Your task to perform on an android device: Do I have any events today? Image 0: 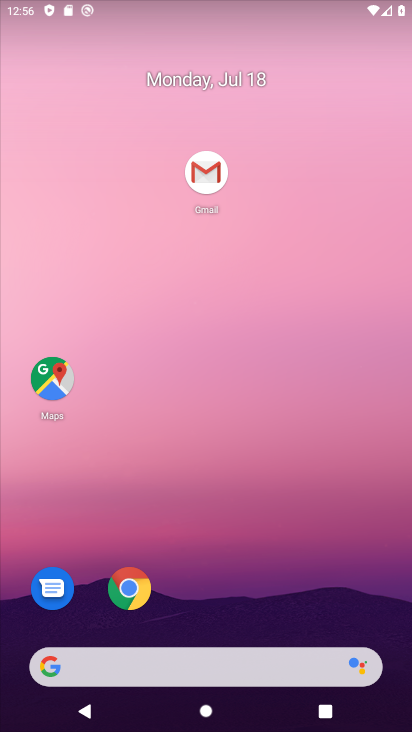
Step 0: drag from (261, 580) to (271, 205)
Your task to perform on an android device: Do I have any events today? Image 1: 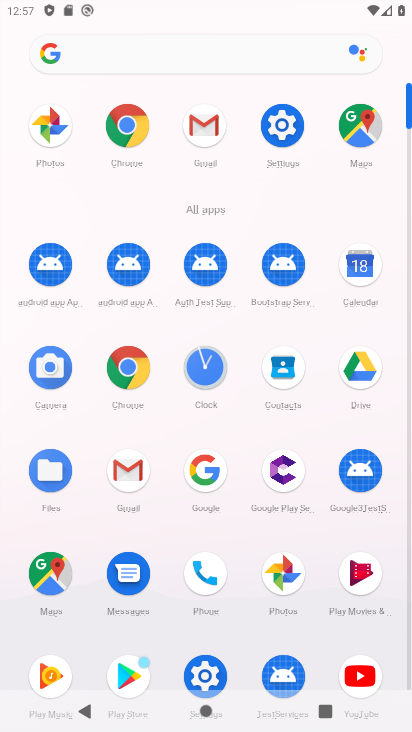
Step 1: press home button
Your task to perform on an android device: Do I have any events today? Image 2: 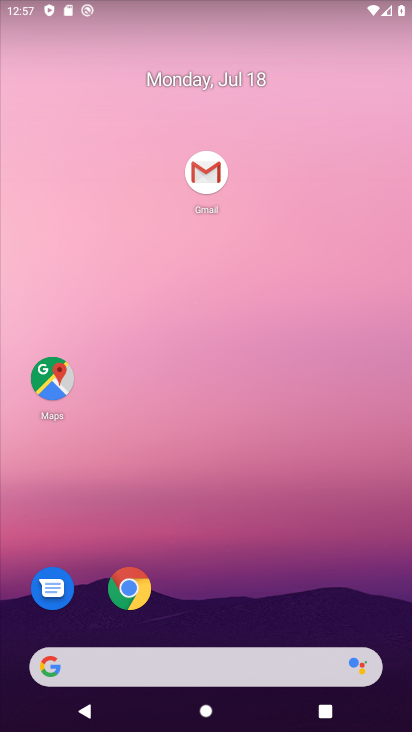
Step 2: drag from (346, 22) to (281, 10)
Your task to perform on an android device: Do I have any events today? Image 3: 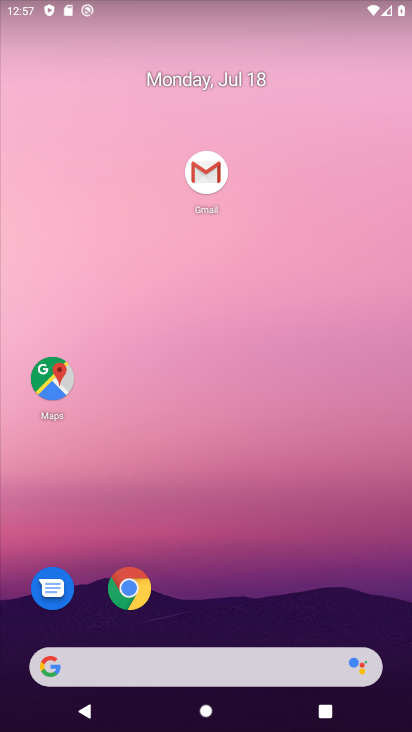
Step 3: drag from (252, 459) to (265, 122)
Your task to perform on an android device: Do I have any events today? Image 4: 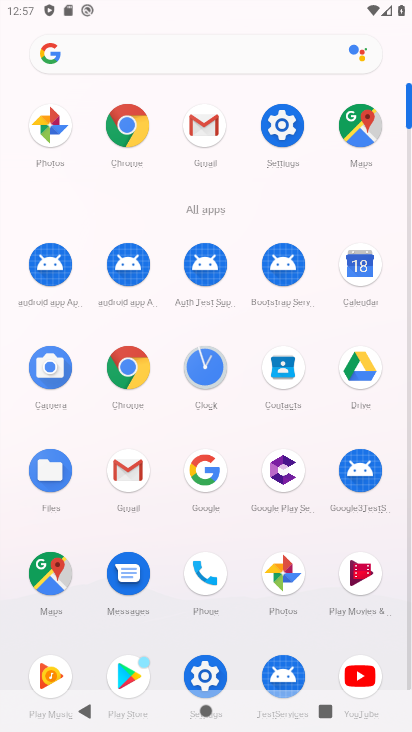
Step 4: click (353, 265)
Your task to perform on an android device: Do I have any events today? Image 5: 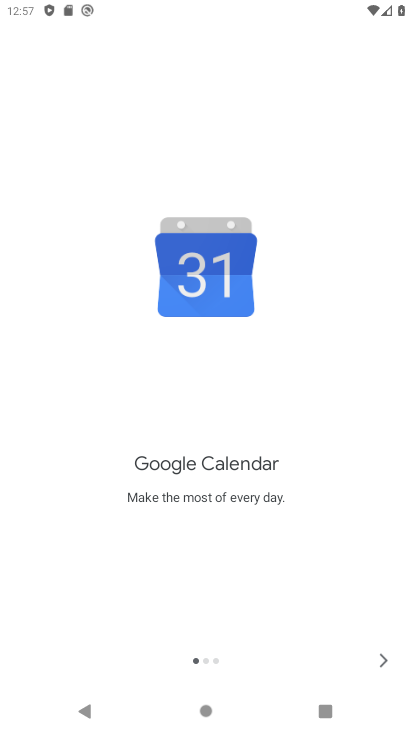
Step 5: click (383, 656)
Your task to perform on an android device: Do I have any events today? Image 6: 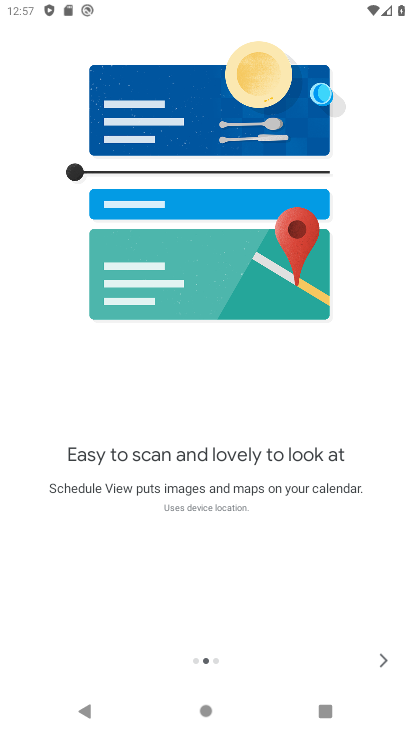
Step 6: click (382, 655)
Your task to perform on an android device: Do I have any events today? Image 7: 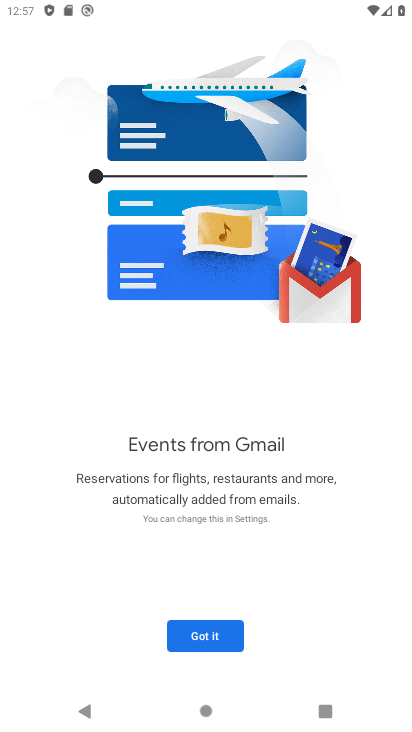
Step 7: click (196, 634)
Your task to perform on an android device: Do I have any events today? Image 8: 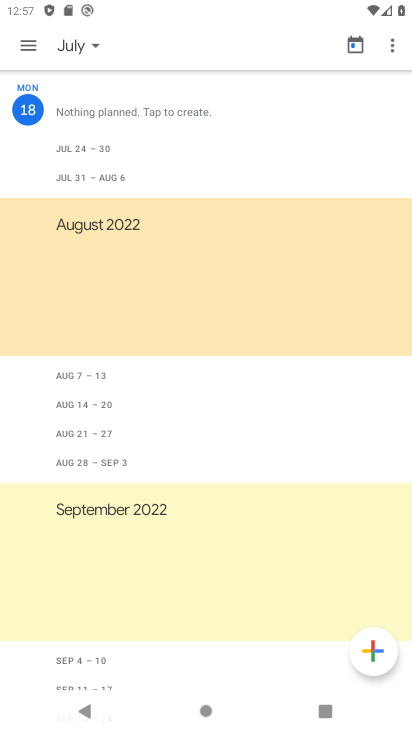
Step 8: task complete